Your task to perform on an android device: visit the assistant section in the google photos Image 0: 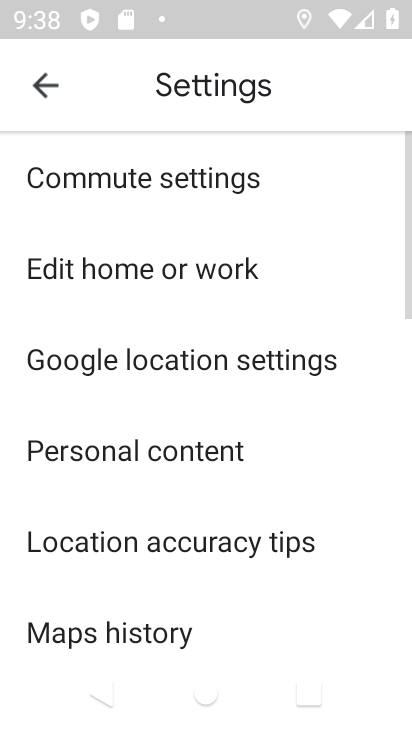
Step 0: press home button
Your task to perform on an android device: visit the assistant section in the google photos Image 1: 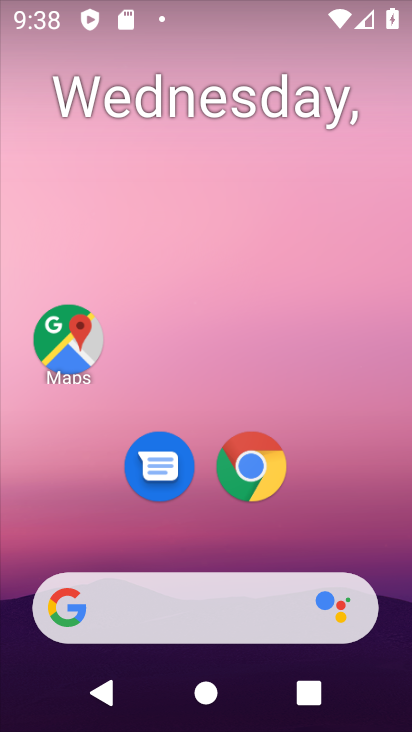
Step 1: drag from (336, 536) to (168, 95)
Your task to perform on an android device: visit the assistant section in the google photos Image 2: 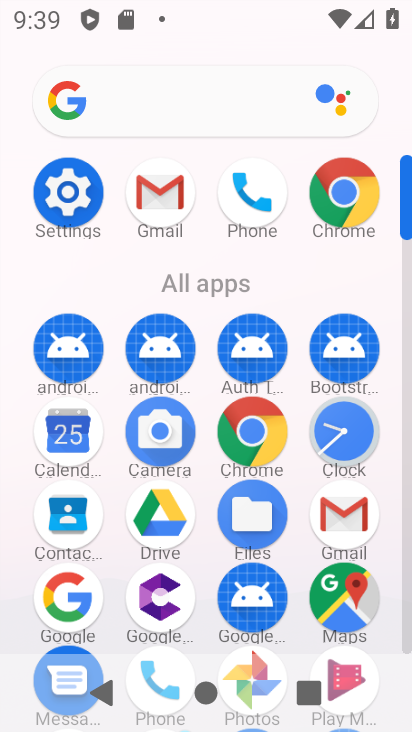
Step 2: click (294, 639)
Your task to perform on an android device: visit the assistant section in the google photos Image 3: 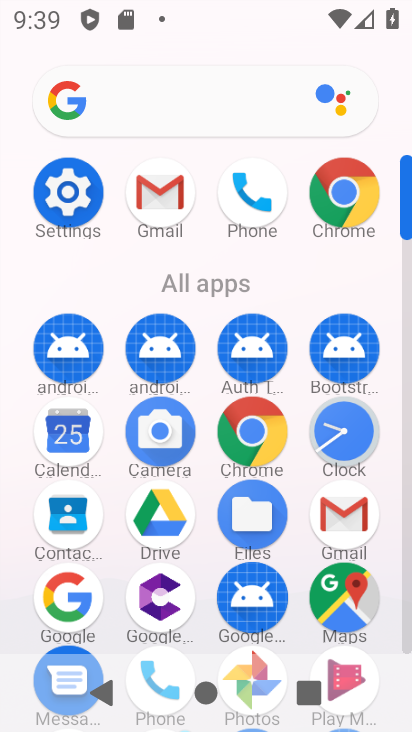
Step 3: drag from (294, 639) to (283, 425)
Your task to perform on an android device: visit the assistant section in the google photos Image 4: 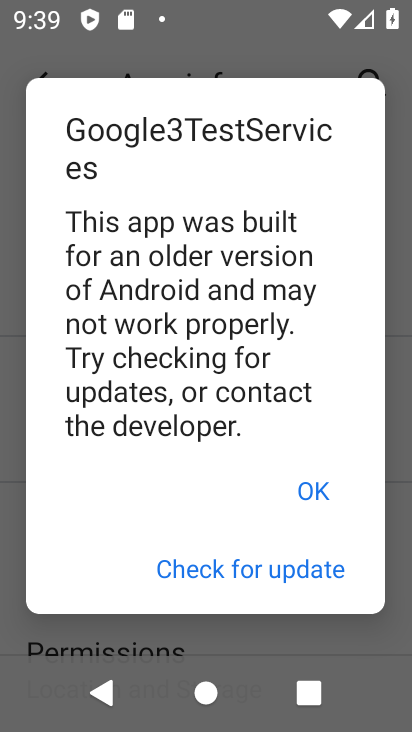
Step 4: press back button
Your task to perform on an android device: visit the assistant section in the google photos Image 5: 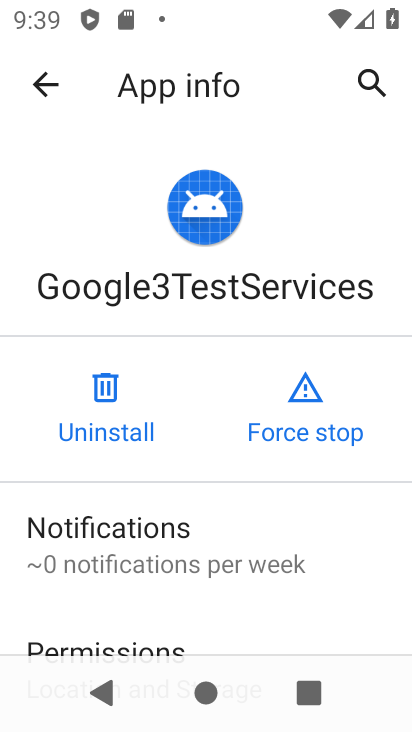
Step 5: press back button
Your task to perform on an android device: visit the assistant section in the google photos Image 6: 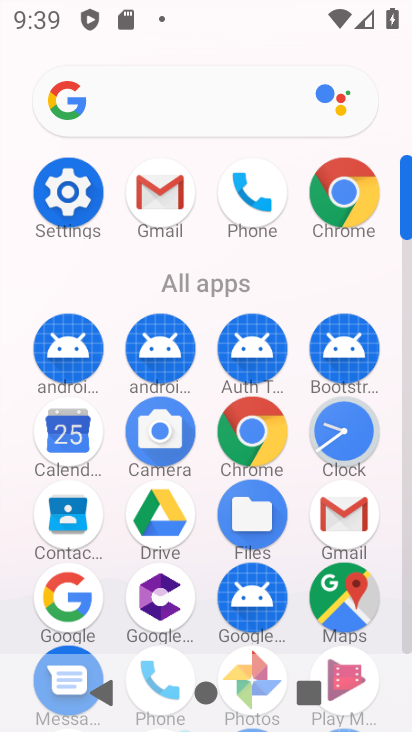
Step 6: drag from (300, 575) to (212, 71)
Your task to perform on an android device: visit the assistant section in the google photos Image 7: 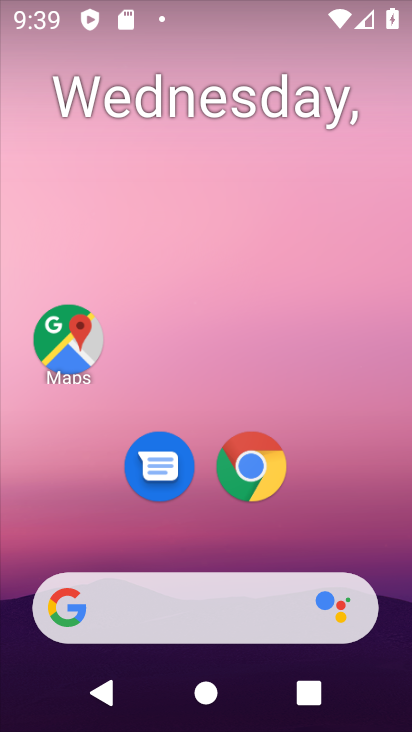
Step 7: drag from (324, 557) to (300, 2)
Your task to perform on an android device: visit the assistant section in the google photos Image 8: 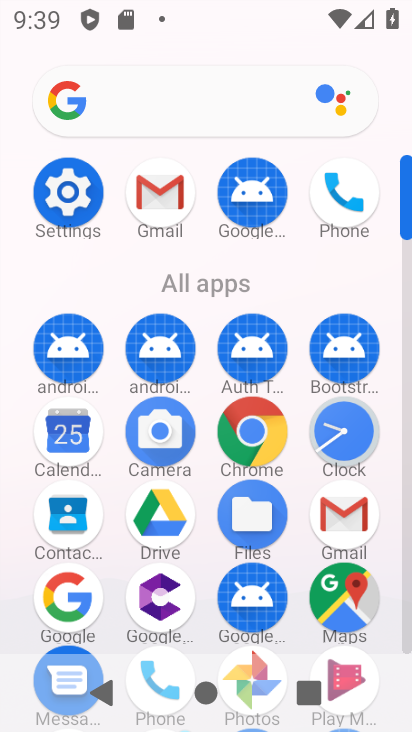
Step 8: drag from (296, 624) to (268, 295)
Your task to perform on an android device: visit the assistant section in the google photos Image 9: 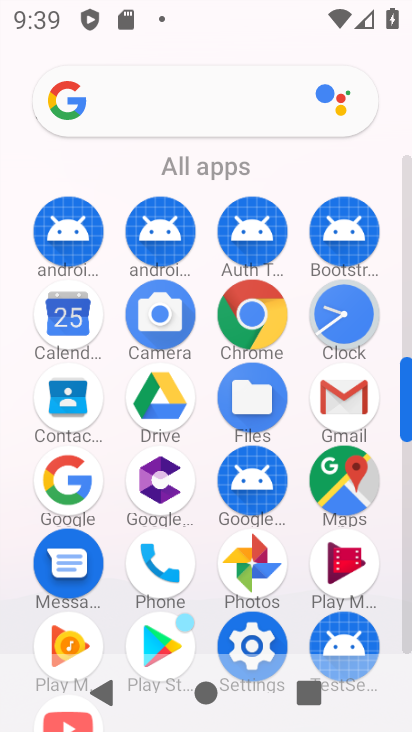
Step 9: click (264, 560)
Your task to perform on an android device: visit the assistant section in the google photos Image 10: 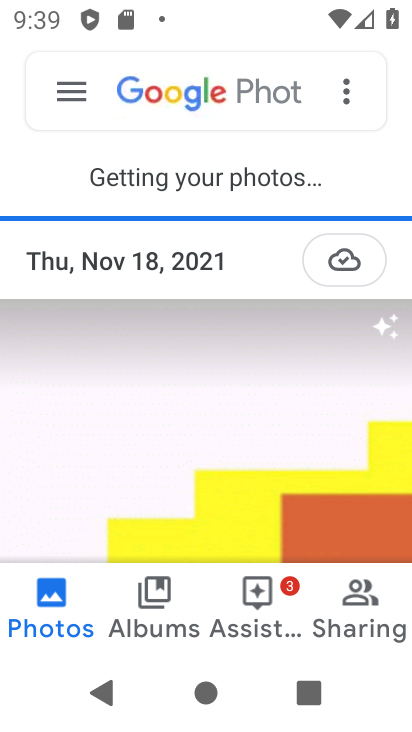
Step 10: click (259, 595)
Your task to perform on an android device: visit the assistant section in the google photos Image 11: 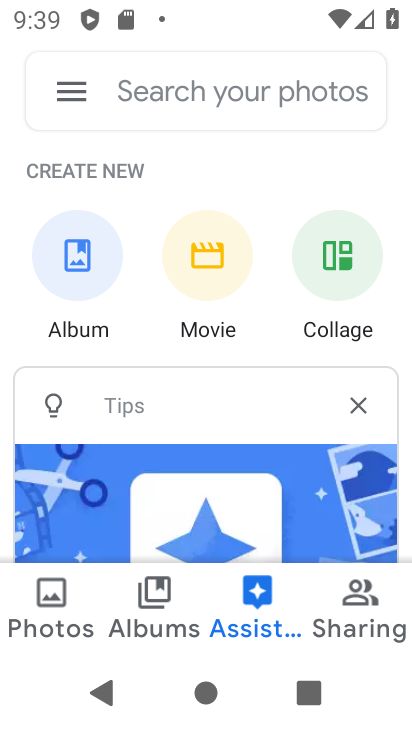
Step 11: task complete